Your task to perform on an android device: toggle airplane mode Image 0: 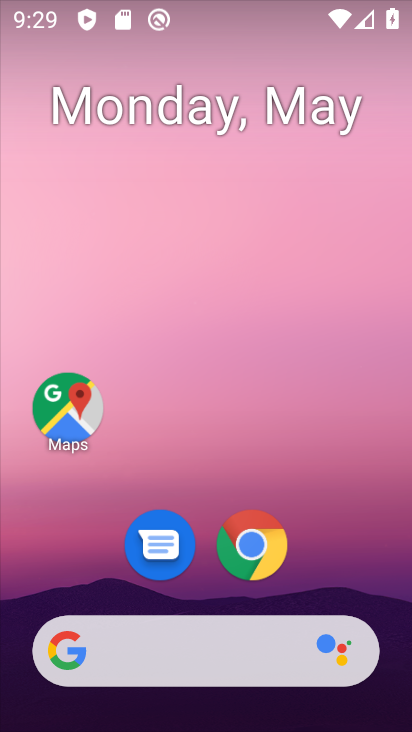
Step 0: drag from (350, 538) to (403, 105)
Your task to perform on an android device: toggle airplane mode Image 1: 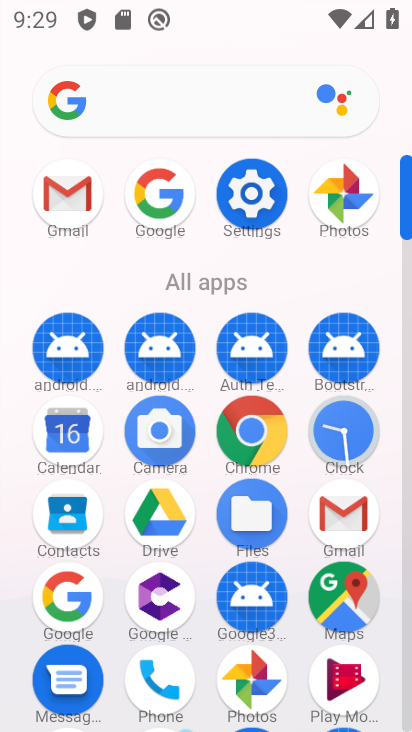
Step 1: click (265, 203)
Your task to perform on an android device: toggle airplane mode Image 2: 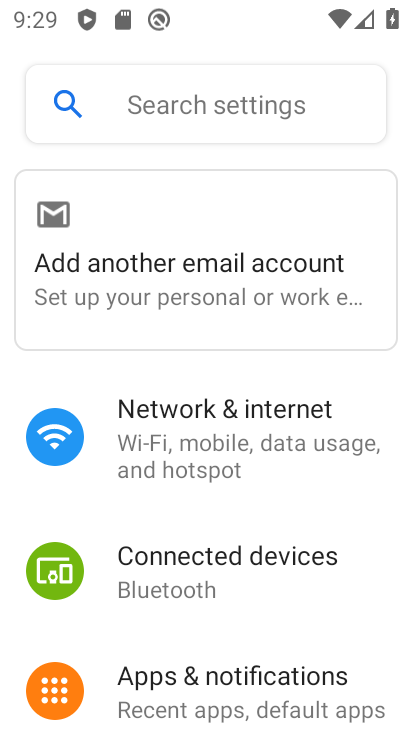
Step 2: click (247, 438)
Your task to perform on an android device: toggle airplane mode Image 3: 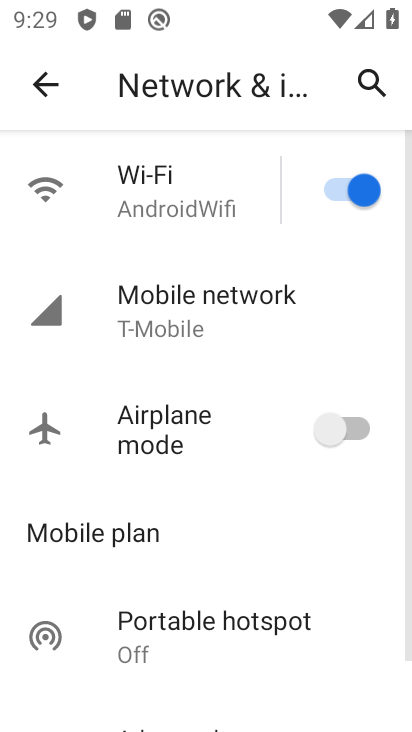
Step 3: click (342, 431)
Your task to perform on an android device: toggle airplane mode Image 4: 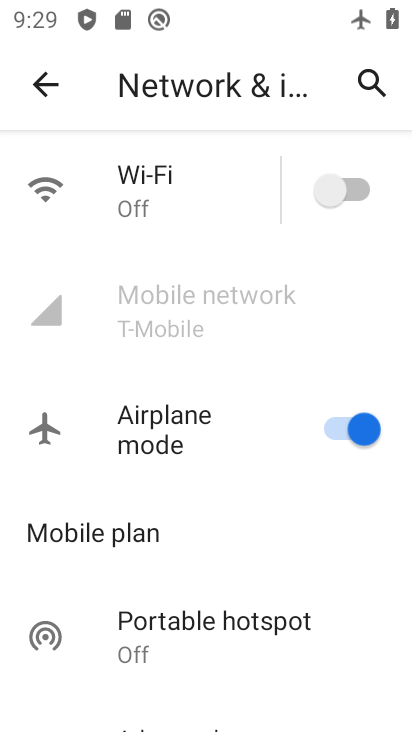
Step 4: task complete